Your task to perform on an android device: Open Yahoo.com Image 0: 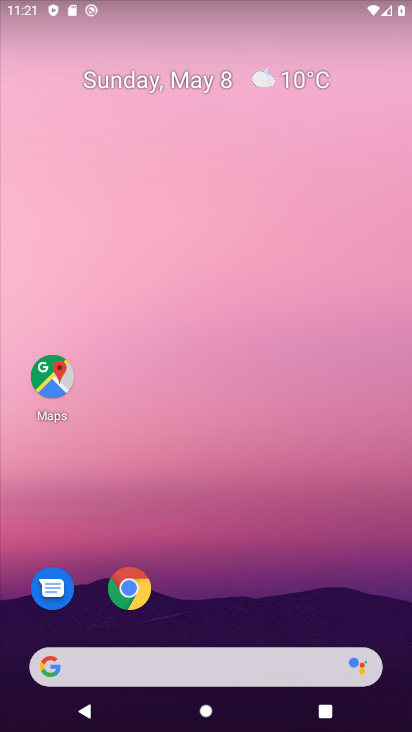
Step 0: click (139, 586)
Your task to perform on an android device: Open Yahoo.com Image 1: 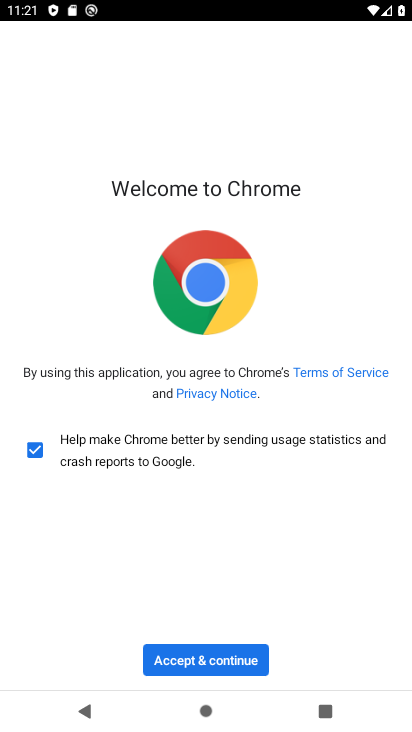
Step 1: click (222, 653)
Your task to perform on an android device: Open Yahoo.com Image 2: 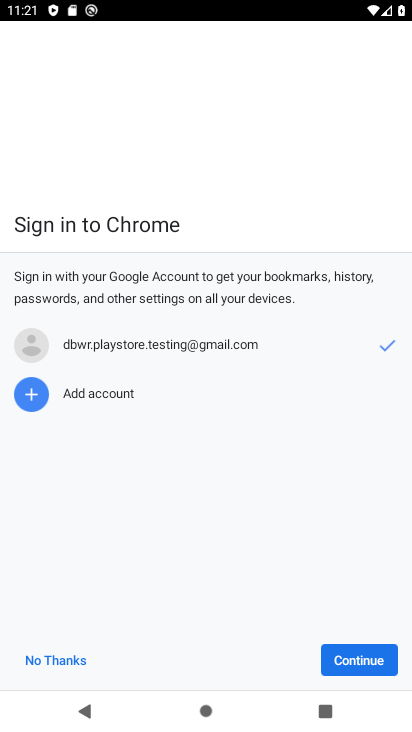
Step 2: click (369, 659)
Your task to perform on an android device: Open Yahoo.com Image 3: 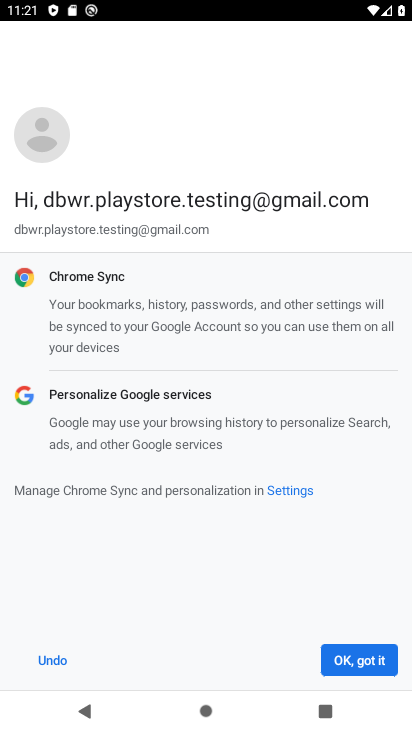
Step 3: click (359, 666)
Your task to perform on an android device: Open Yahoo.com Image 4: 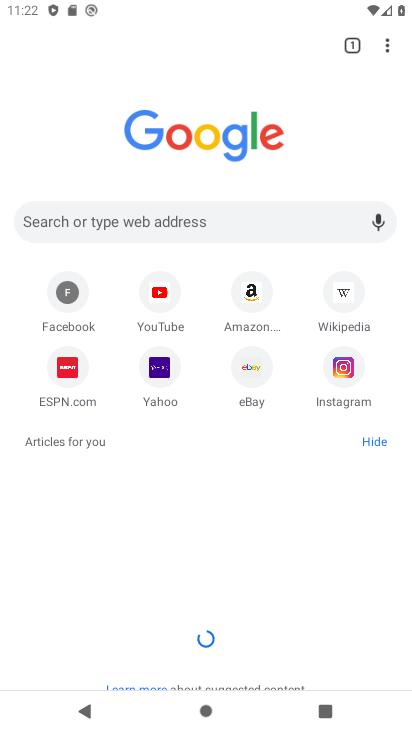
Step 4: click (129, 362)
Your task to perform on an android device: Open Yahoo.com Image 5: 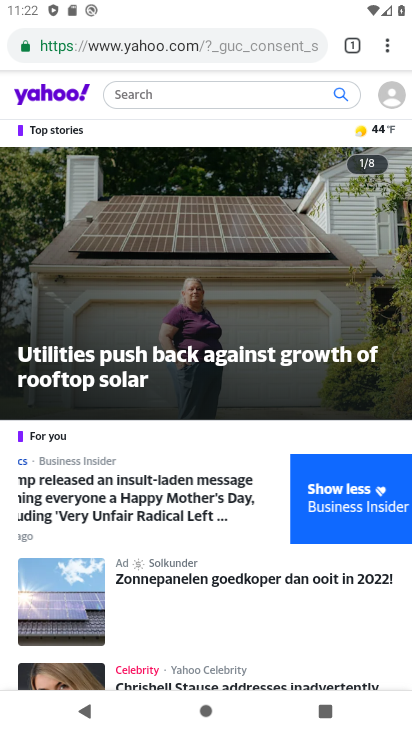
Step 5: task complete